Your task to perform on an android device: Search for vegetarian restaurants on Maps Image 0: 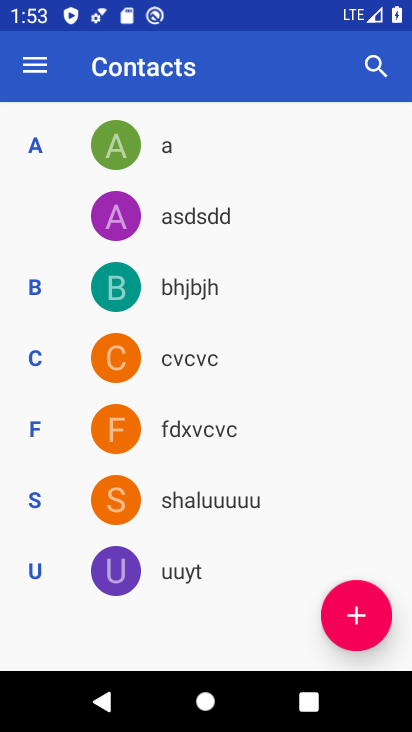
Step 0: press home button
Your task to perform on an android device: Search for vegetarian restaurants on Maps Image 1: 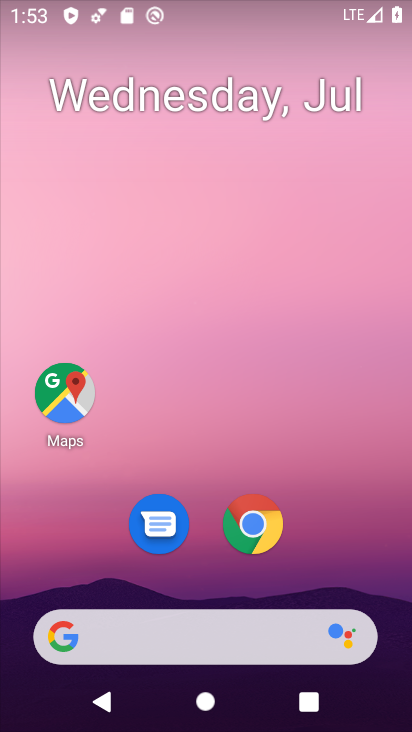
Step 1: click (69, 407)
Your task to perform on an android device: Search for vegetarian restaurants on Maps Image 2: 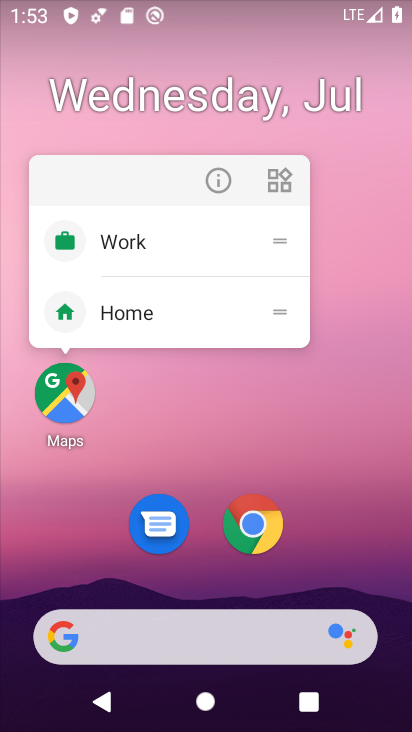
Step 2: click (65, 414)
Your task to perform on an android device: Search for vegetarian restaurants on Maps Image 3: 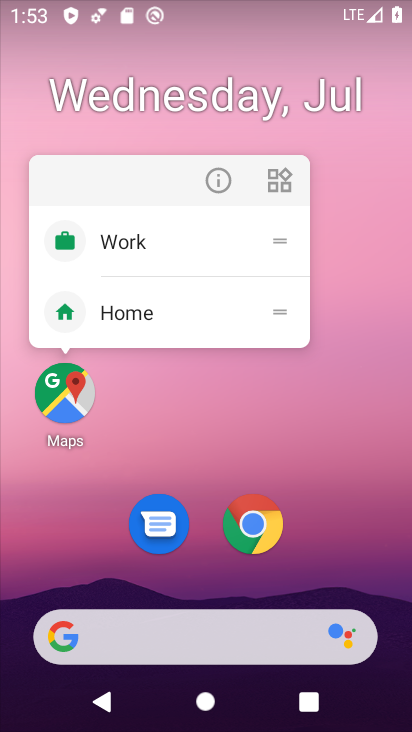
Step 3: click (67, 414)
Your task to perform on an android device: Search for vegetarian restaurants on Maps Image 4: 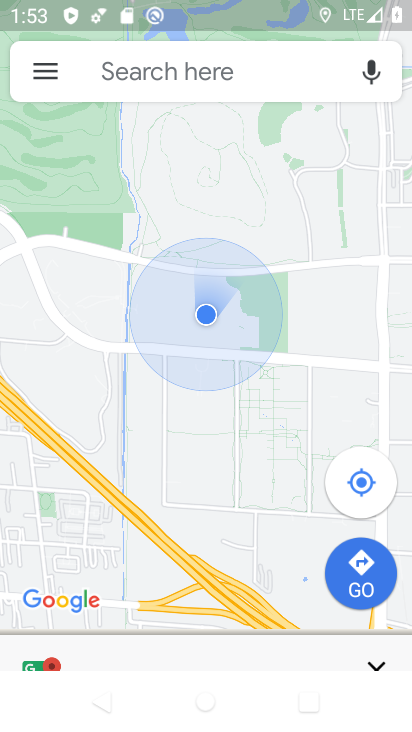
Step 4: click (222, 75)
Your task to perform on an android device: Search for vegetarian restaurants on Maps Image 5: 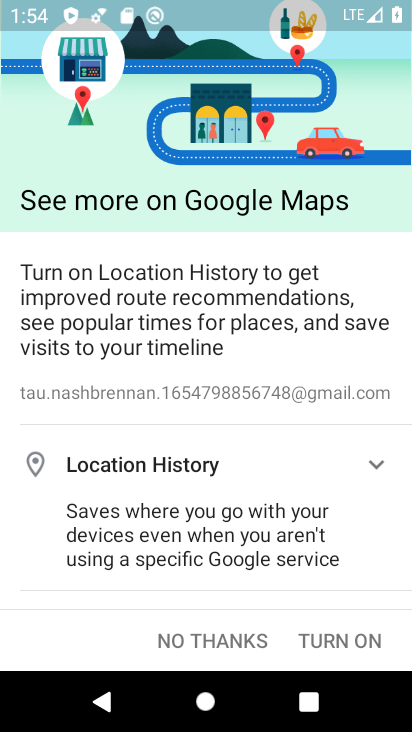
Step 5: click (307, 639)
Your task to perform on an android device: Search for vegetarian restaurants on Maps Image 6: 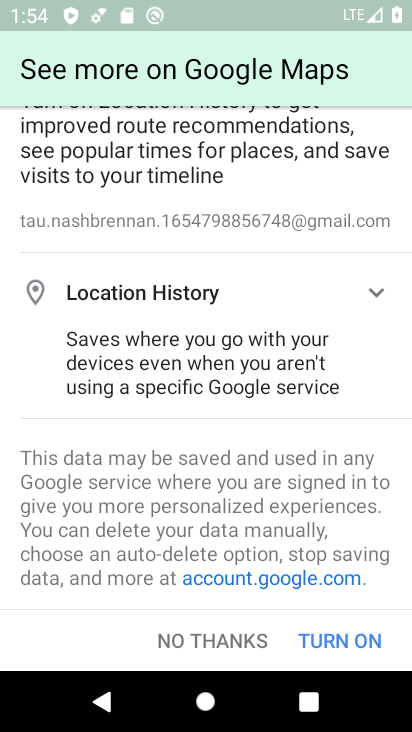
Step 6: click (330, 639)
Your task to perform on an android device: Search for vegetarian restaurants on Maps Image 7: 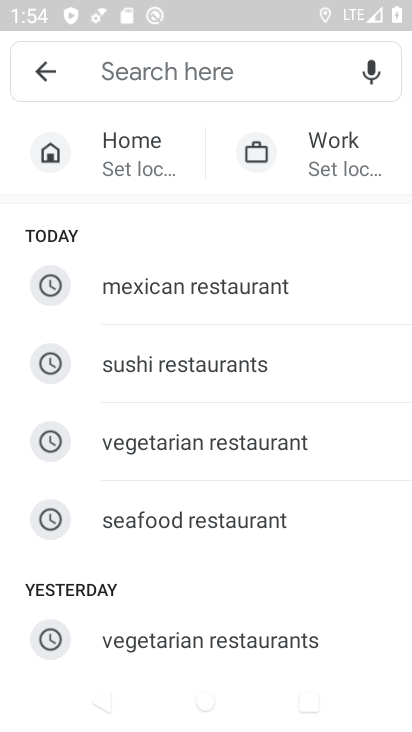
Step 7: click (191, 68)
Your task to perform on an android device: Search for vegetarian restaurants on Maps Image 8: 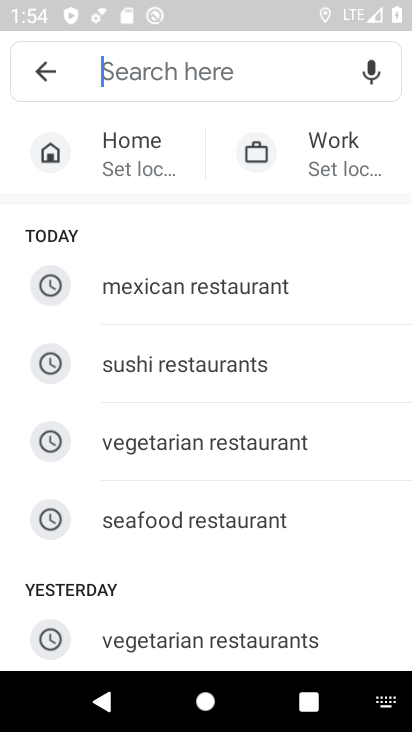
Step 8: click (219, 437)
Your task to perform on an android device: Search for vegetarian restaurants on Maps Image 9: 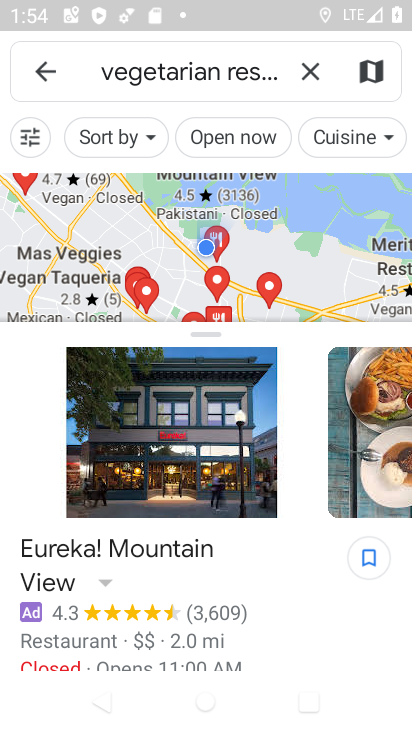
Step 9: task complete